Your task to perform on an android device: check battery use Image 0: 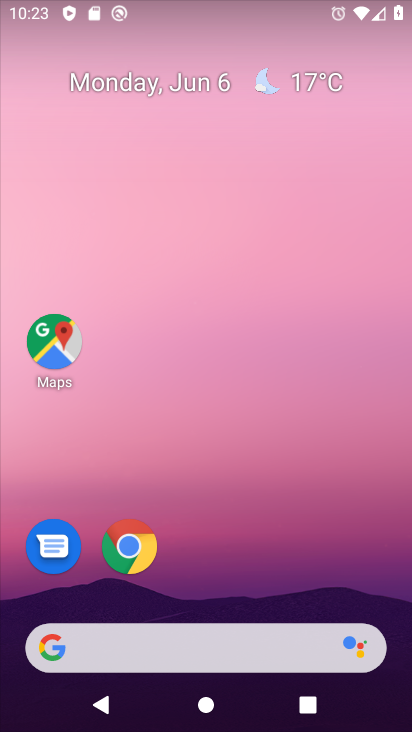
Step 0: drag from (204, 583) to (351, 6)
Your task to perform on an android device: check battery use Image 1: 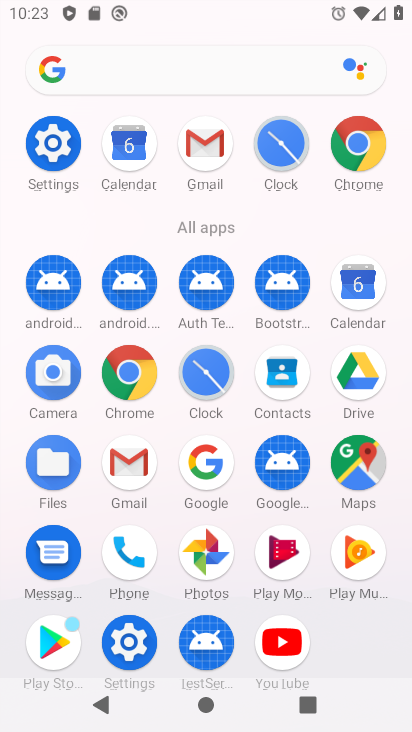
Step 1: click (60, 170)
Your task to perform on an android device: check battery use Image 2: 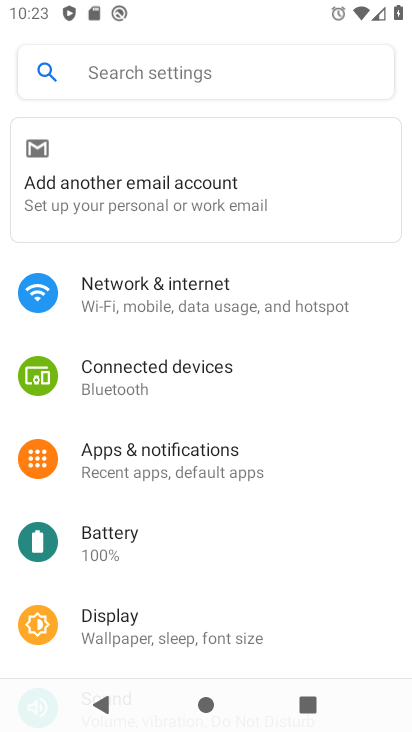
Step 2: click (117, 552)
Your task to perform on an android device: check battery use Image 3: 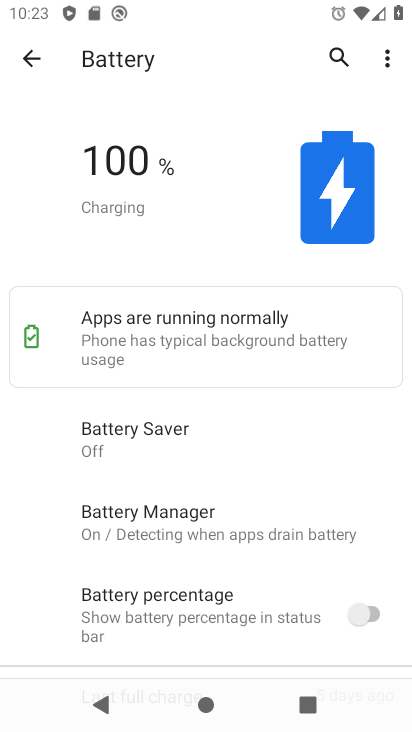
Step 3: click (386, 72)
Your task to perform on an android device: check battery use Image 4: 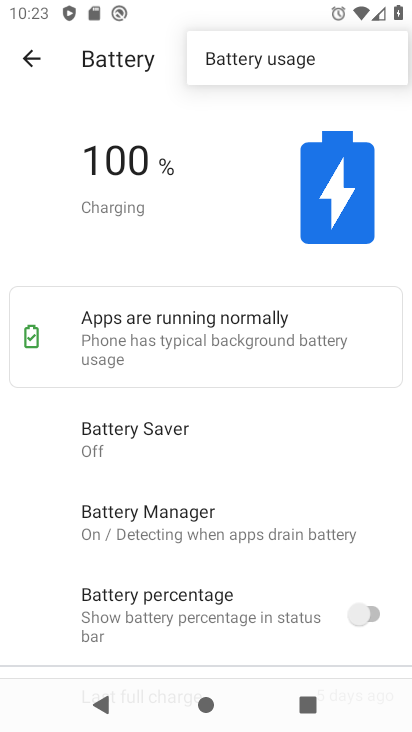
Step 4: click (255, 53)
Your task to perform on an android device: check battery use Image 5: 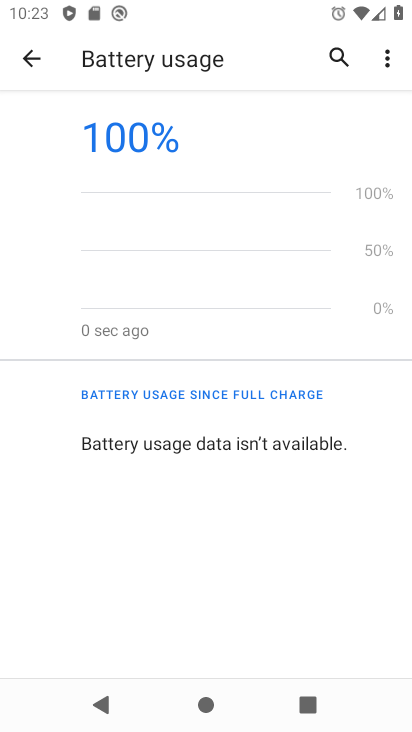
Step 5: task complete